Your task to perform on an android device: change the clock display to analog Image 0: 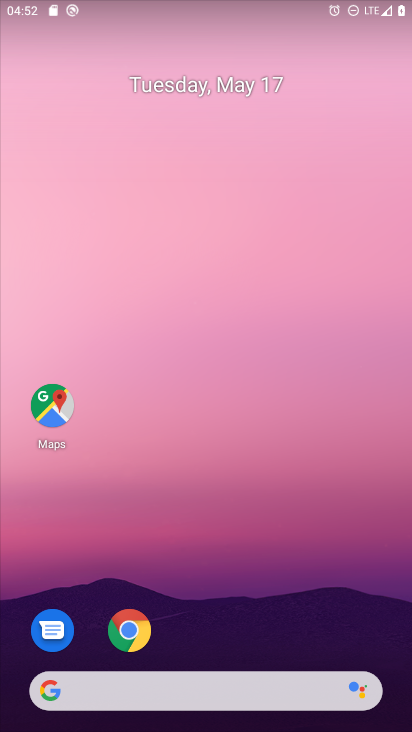
Step 0: drag from (221, 601) to (292, 85)
Your task to perform on an android device: change the clock display to analog Image 1: 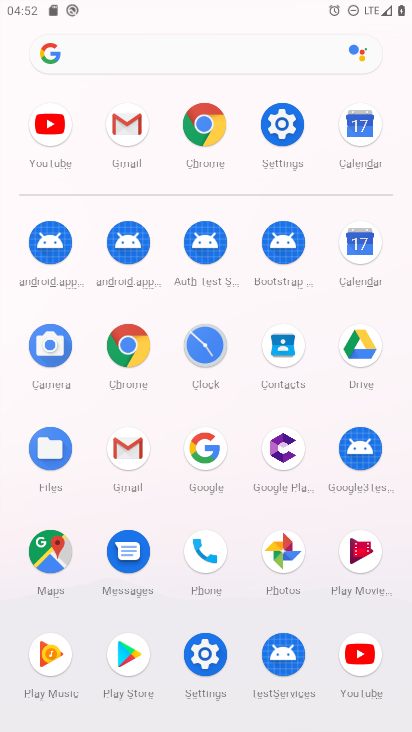
Step 1: click (208, 349)
Your task to perform on an android device: change the clock display to analog Image 2: 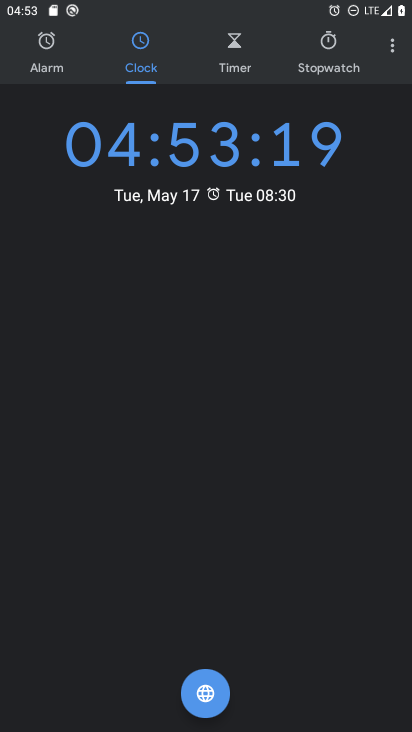
Step 2: click (389, 46)
Your task to perform on an android device: change the clock display to analog Image 3: 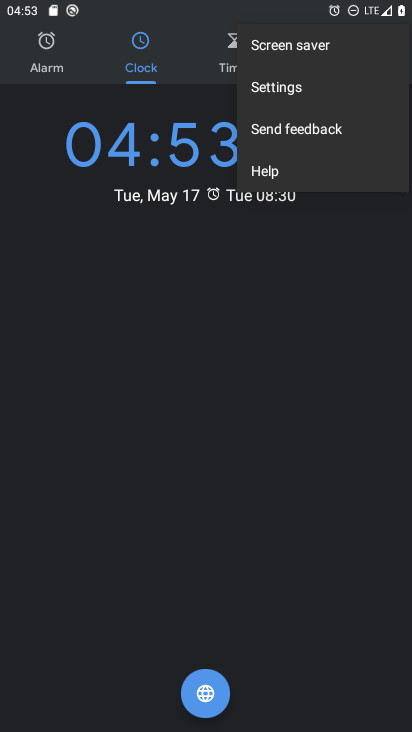
Step 3: click (290, 72)
Your task to perform on an android device: change the clock display to analog Image 4: 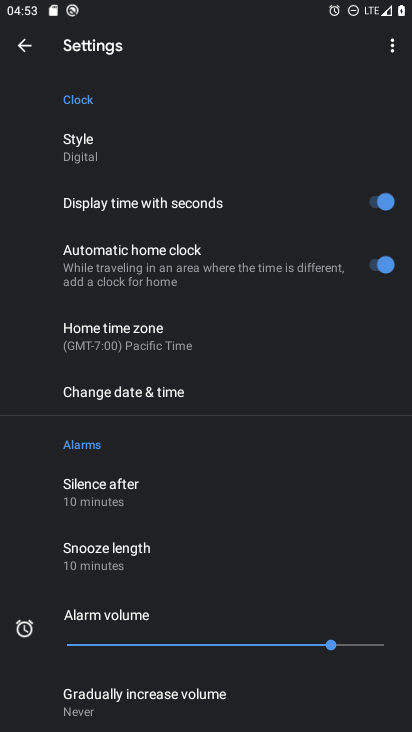
Step 4: click (137, 161)
Your task to perform on an android device: change the clock display to analog Image 5: 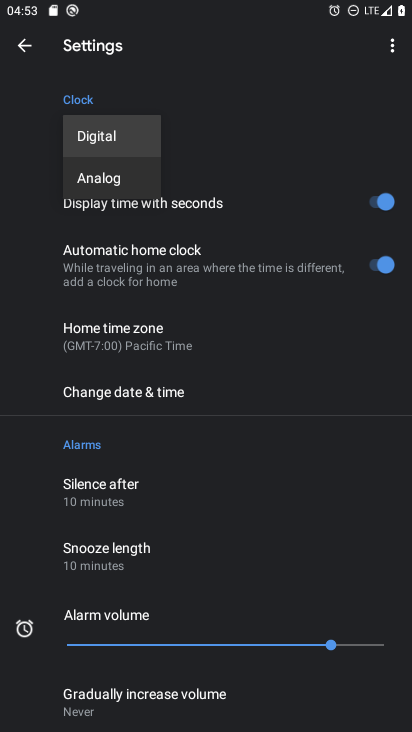
Step 5: click (133, 180)
Your task to perform on an android device: change the clock display to analog Image 6: 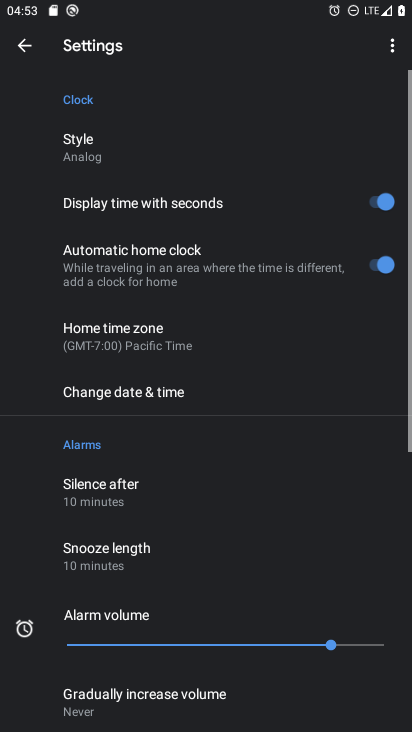
Step 6: task complete